Your task to perform on an android device: find photos in the google photos app Image 0: 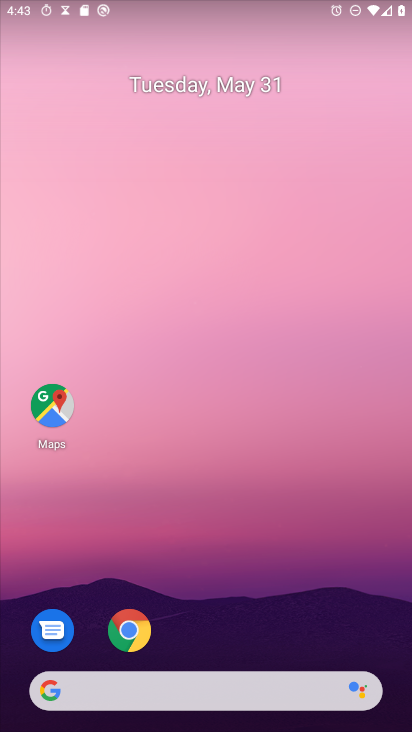
Step 0: drag from (332, 647) to (332, 0)
Your task to perform on an android device: find photos in the google photos app Image 1: 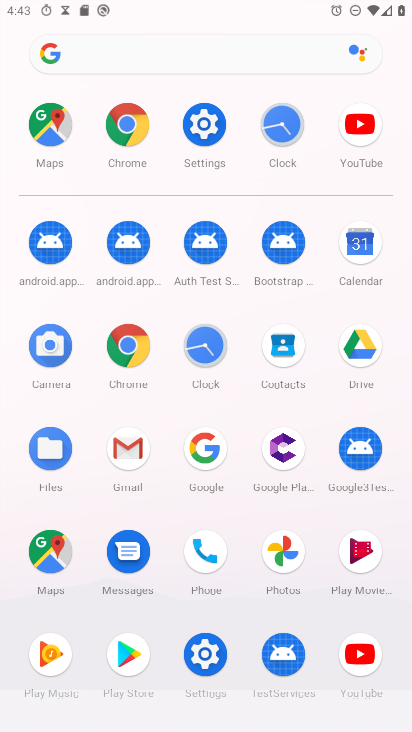
Step 1: click (285, 560)
Your task to perform on an android device: find photos in the google photos app Image 2: 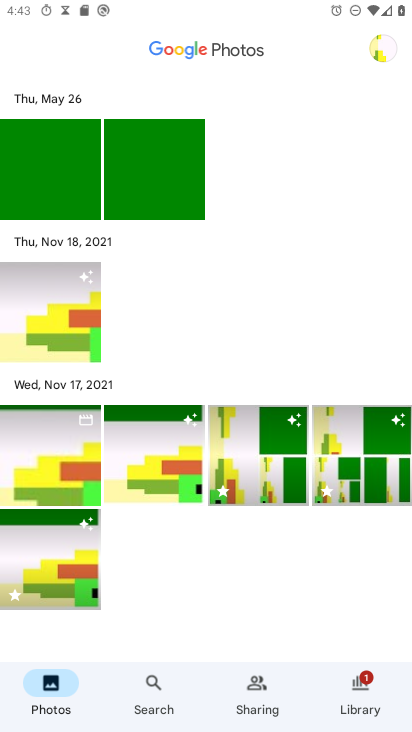
Step 2: task complete